Your task to perform on an android device: Go to location settings Image 0: 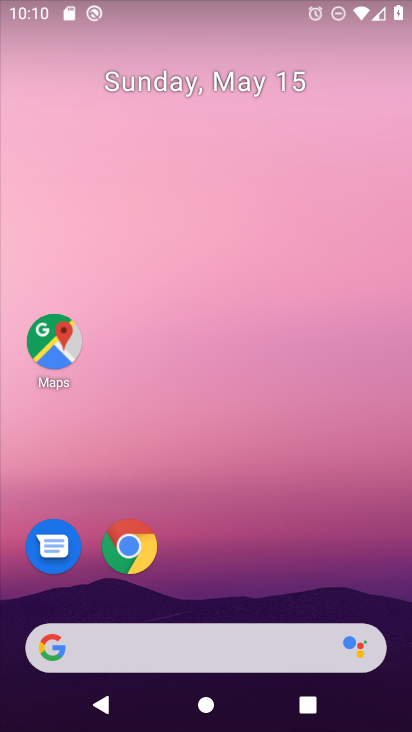
Step 0: drag from (354, 500) to (378, 118)
Your task to perform on an android device: Go to location settings Image 1: 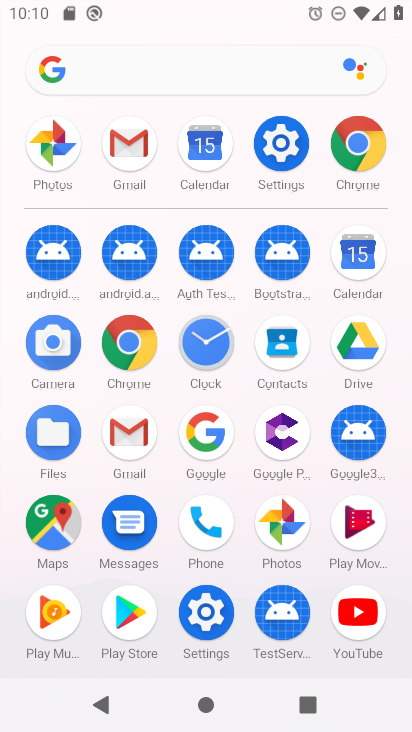
Step 1: click (283, 142)
Your task to perform on an android device: Go to location settings Image 2: 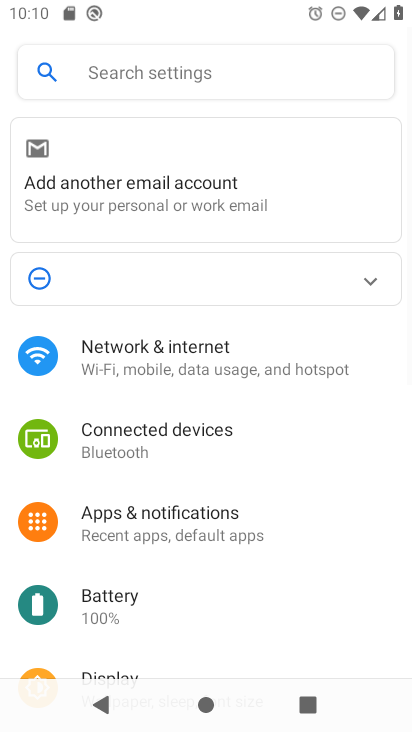
Step 2: drag from (241, 598) to (299, 201)
Your task to perform on an android device: Go to location settings Image 3: 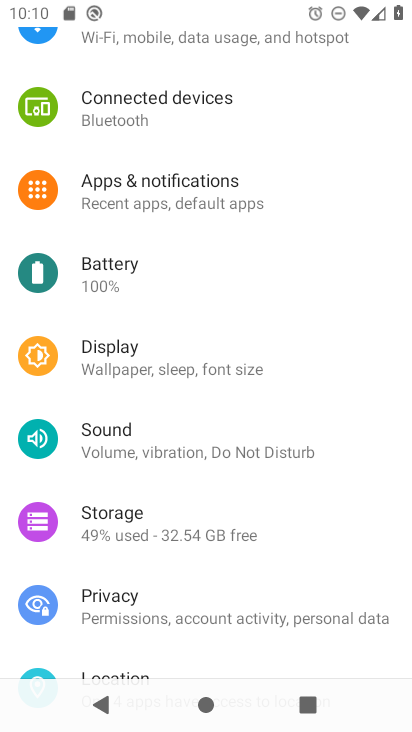
Step 3: drag from (195, 563) to (293, 326)
Your task to perform on an android device: Go to location settings Image 4: 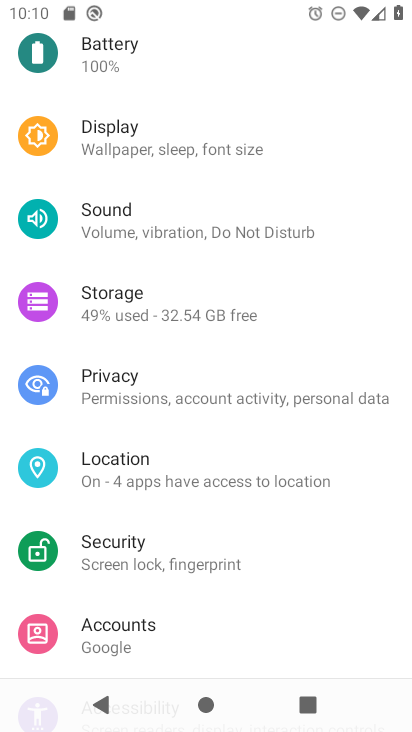
Step 4: click (167, 479)
Your task to perform on an android device: Go to location settings Image 5: 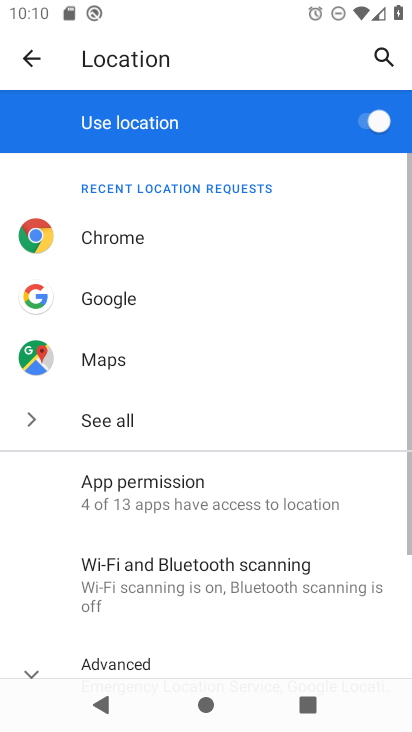
Step 5: task complete